Your task to perform on an android device: see creations saved in the google photos Image 0: 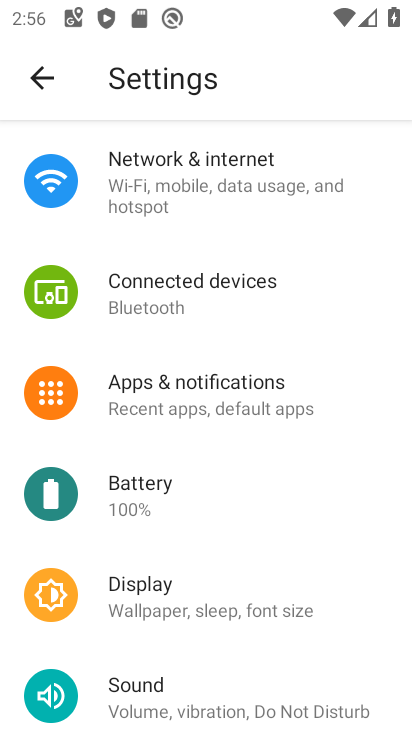
Step 0: press home button
Your task to perform on an android device: see creations saved in the google photos Image 1: 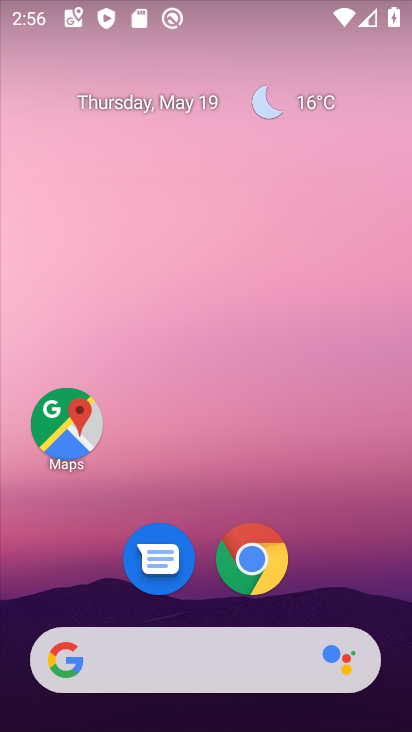
Step 1: drag from (195, 607) to (226, 256)
Your task to perform on an android device: see creations saved in the google photos Image 2: 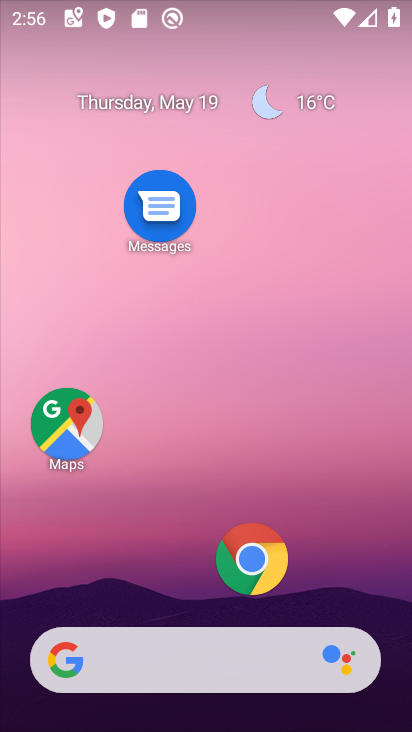
Step 2: drag from (213, 609) to (213, 265)
Your task to perform on an android device: see creations saved in the google photos Image 3: 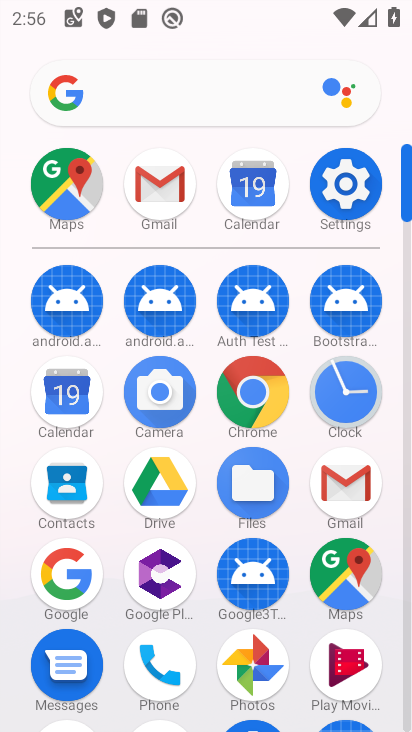
Step 3: click (259, 658)
Your task to perform on an android device: see creations saved in the google photos Image 4: 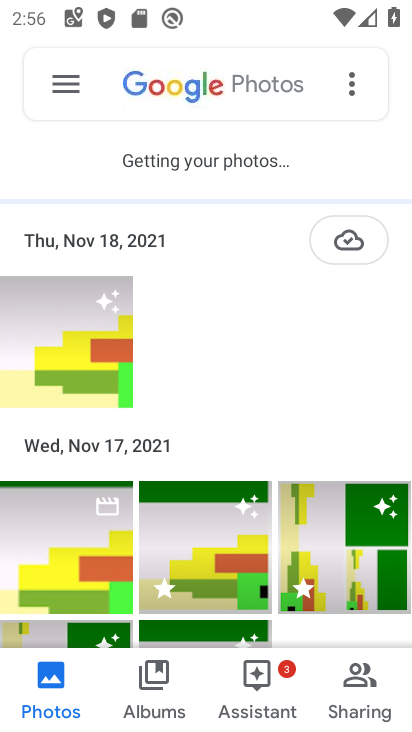
Step 4: click (241, 99)
Your task to perform on an android device: see creations saved in the google photos Image 5: 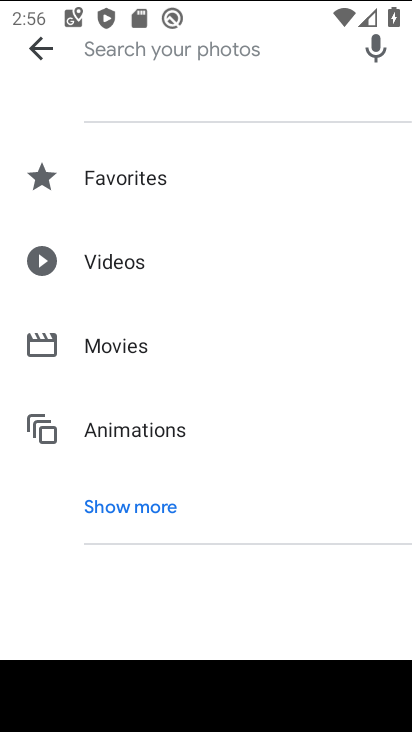
Step 5: click (159, 496)
Your task to perform on an android device: see creations saved in the google photos Image 6: 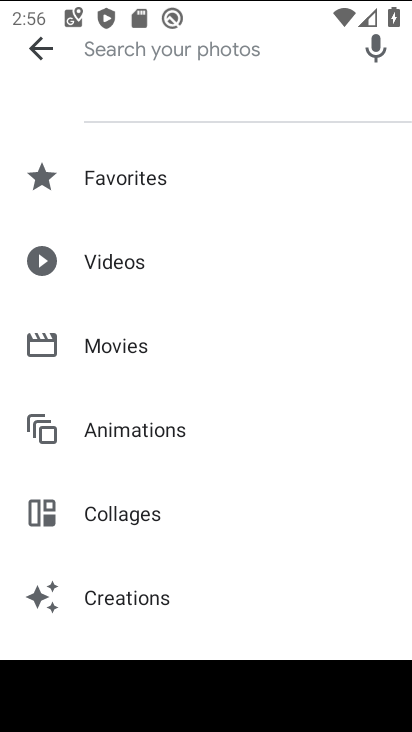
Step 6: drag from (182, 565) to (213, 359)
Your task to perform on an android device: see creations saved in the google photos Image 7: 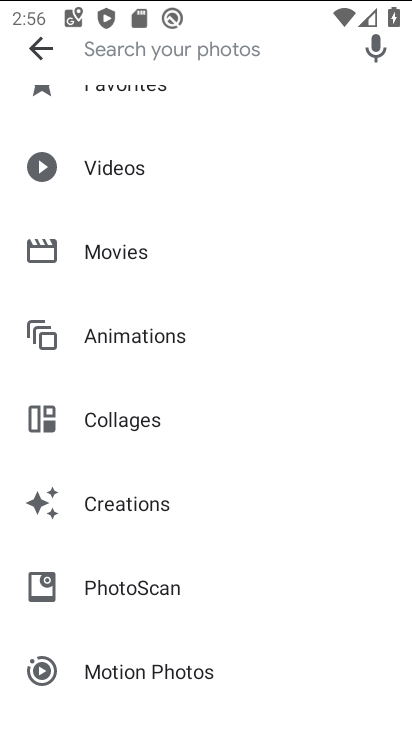
Step 7: click (148, 504)
Your task to perform on an android device: see creations saved in the google photos Image 8: 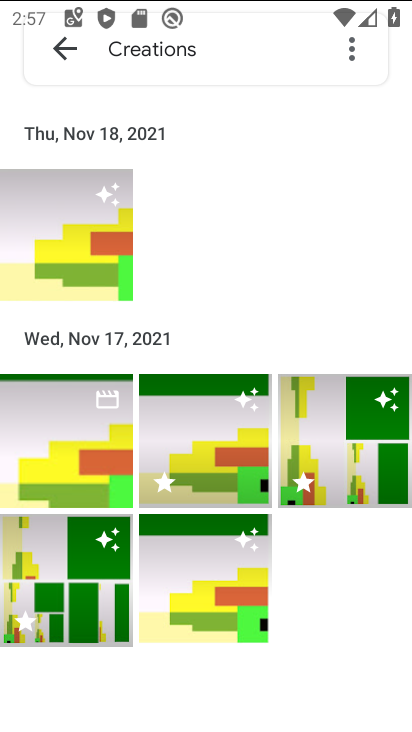
Step 8: task complete